Your task to perform on an android device: turn off picture-in-picture Image 0: 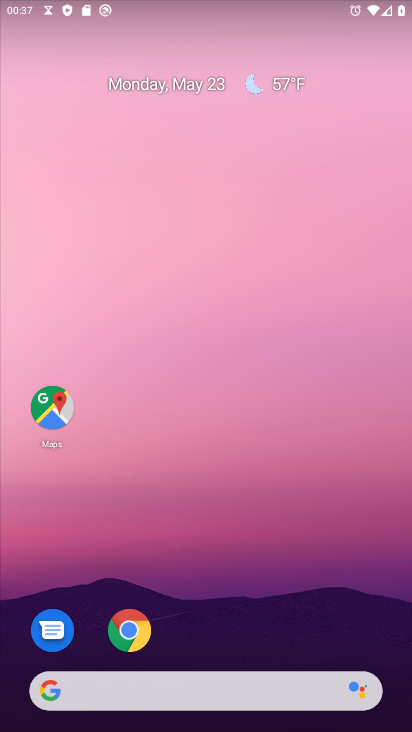
Step 0: drag from (258, 516) to (197, 37)
Your task to perform on an android device: turn off picture-in-picture Image 1: 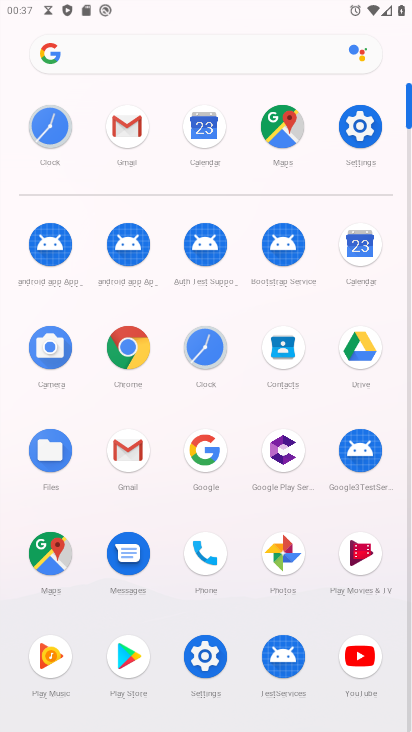
Step 1: click (362, 136)
Your task to perform on an android device: turn off picture-in-picture Image 2: 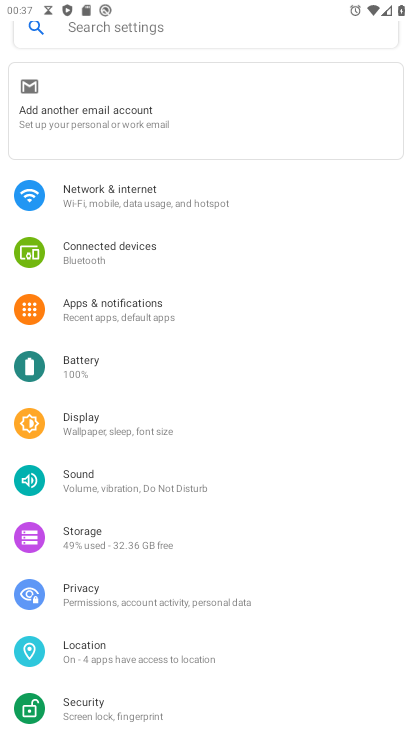
Step 2: click (129, 288)
Your task to perform on an android device: turn off picture-in-picture Image 3: 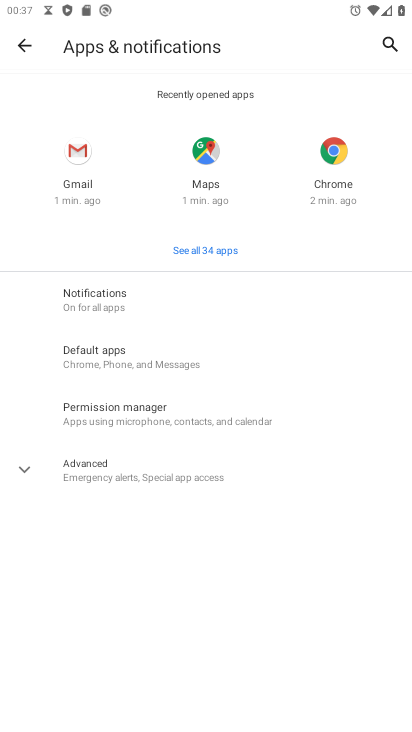
Step 3: click (133, 301)
Your task to perform on an android device: turn off picture-in-picture Image 4: 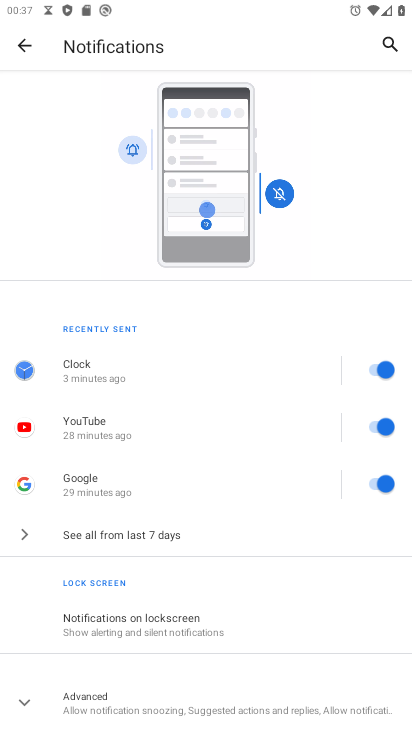
Step 4: click (14, 39)
Your task to perform on an android device: turn off picture-in-picture Image 5: 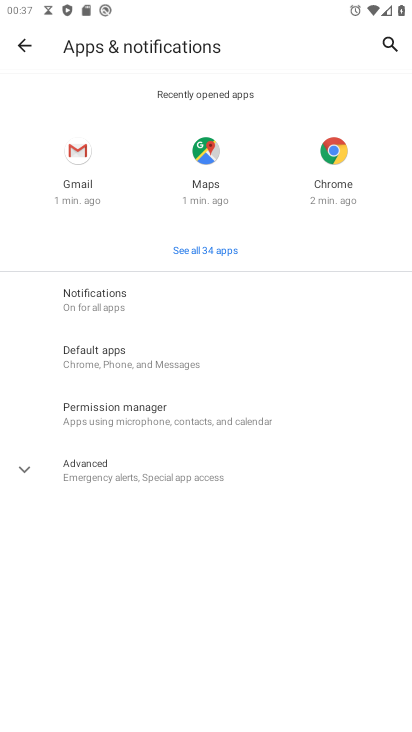
Step 5: click (155, 470)
Your task to perform on an android device: turn off picture-in-picture Image 6: 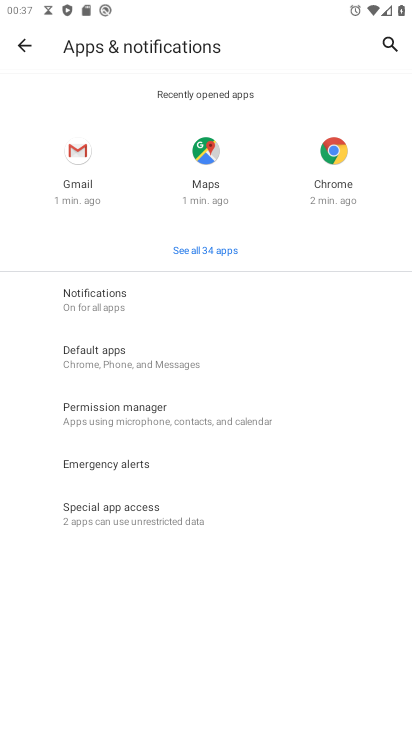
Step 6: click (181, 515)
Your task to perform on an android device: turn off picture-in-picture Image 7: 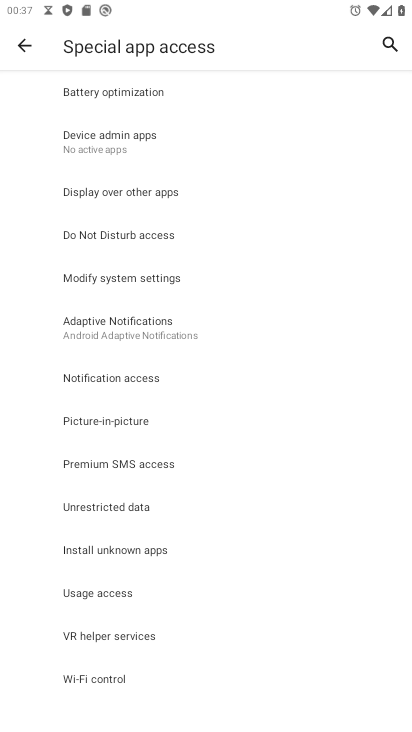
Step 7: click (142, 421)
Your task to perform on an android device: turn off picture-in-picture Image 8: 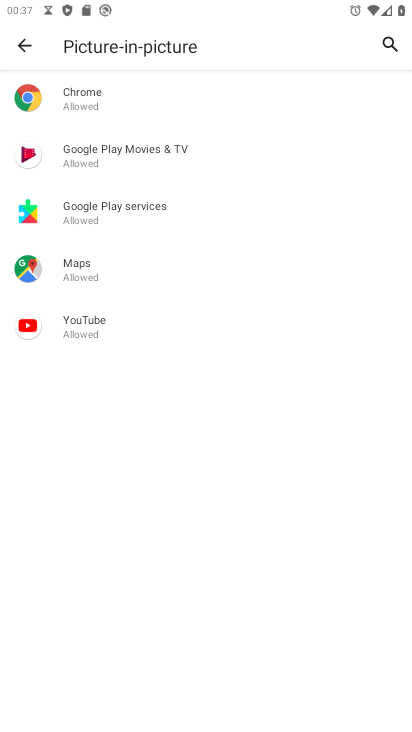
Step 8: click (90, 208)
Your task to perform on an android device: turn off picture-in-picture Image 9: 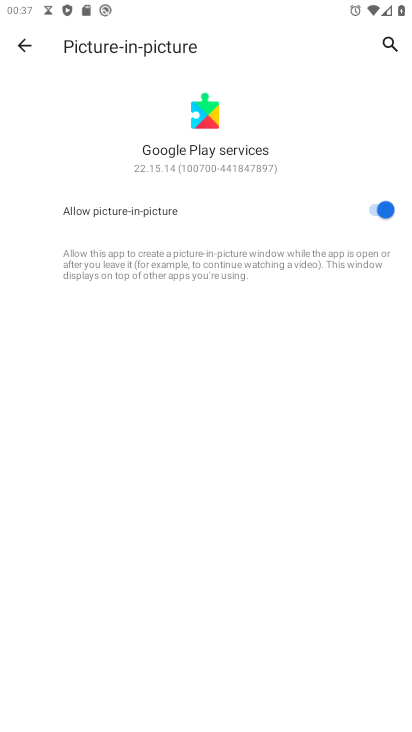
Step 9: click (379, 209)
Your task to perform on an android device: turn off picture-in-picture Image 10: 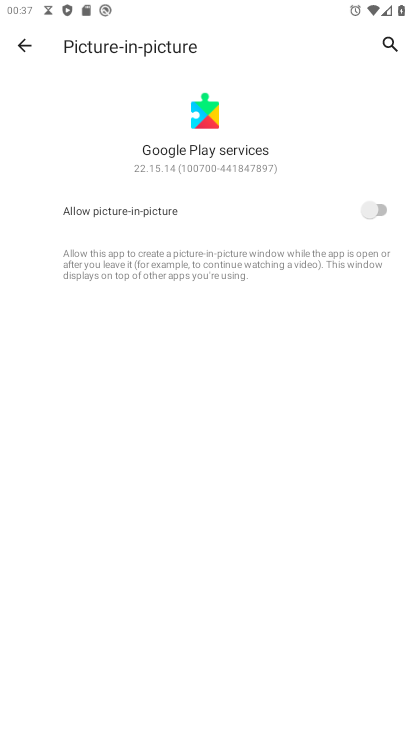
Step 10: task complete